Your task to perform on an android device: open a bookmark in the chrome app Image 0: 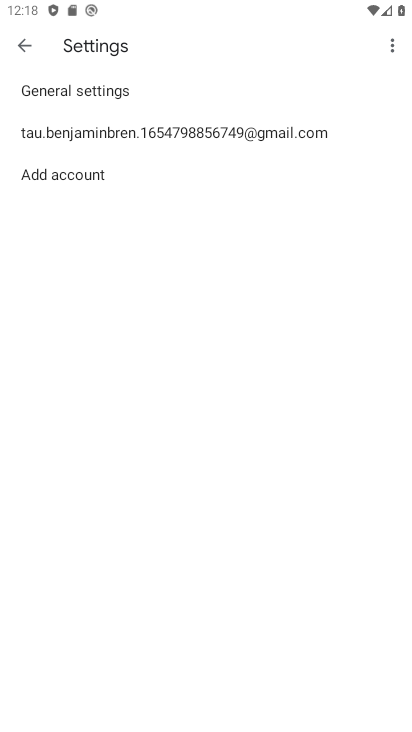
Step 0: drag from (327, 519) to (350, 146)
Your task to perform on an android device: open a bookmark in the chrome app Image 1: 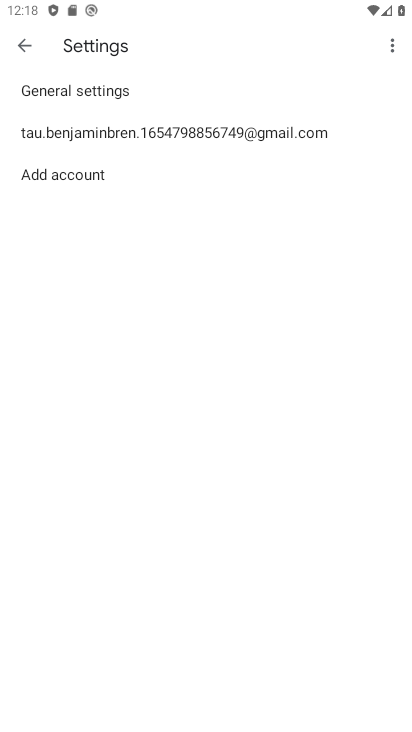
Step 1: click (26, 42)
Your task to perform on an android device: open a bookmark in the chrome app Image 2: 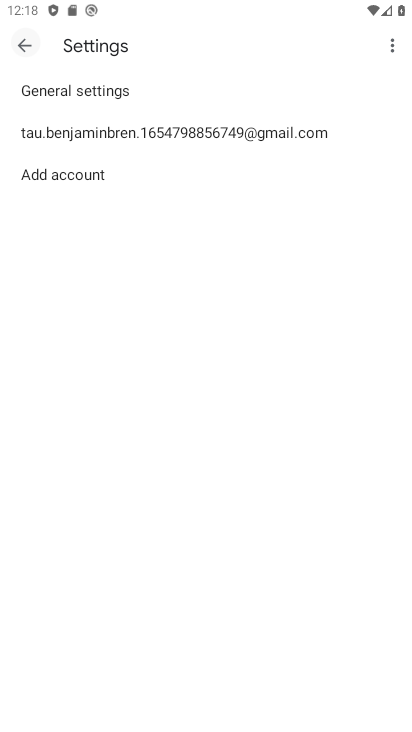
Step 2: click (21, 47)
Your task to perform on an android device: open a bookmark in the chrome app Image 3: 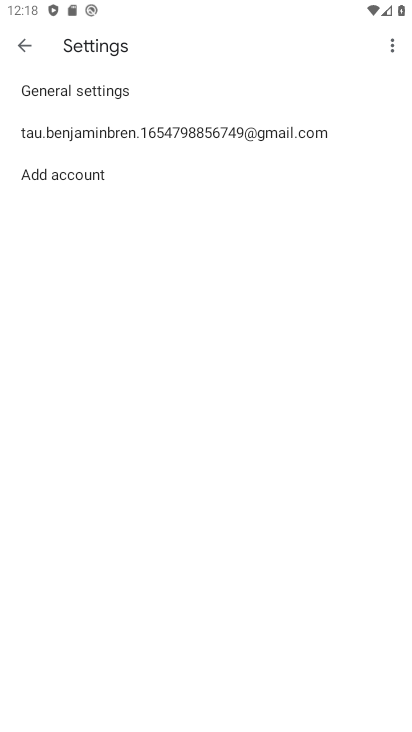
Step 3: click (22, 48)
Your task to perform on an android device: open a bookmark in the chrome app Image 4: 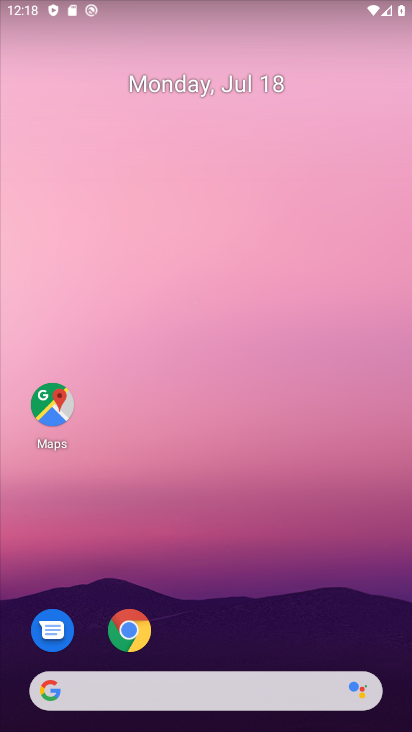
Step 4: drag from (204, 581) to (149, 39)
Your task to perform on an android device: open a bookmark in the chrome app Image 5: 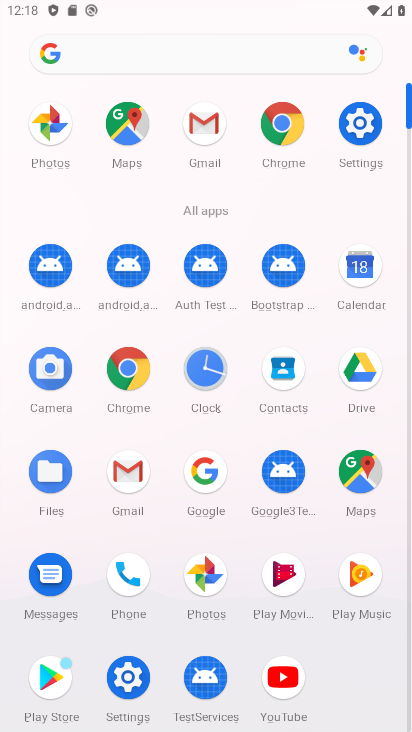
Step 5: click (273, 135)
Your task to perform on an android device: open a bookmark in the chrome app Image 6: 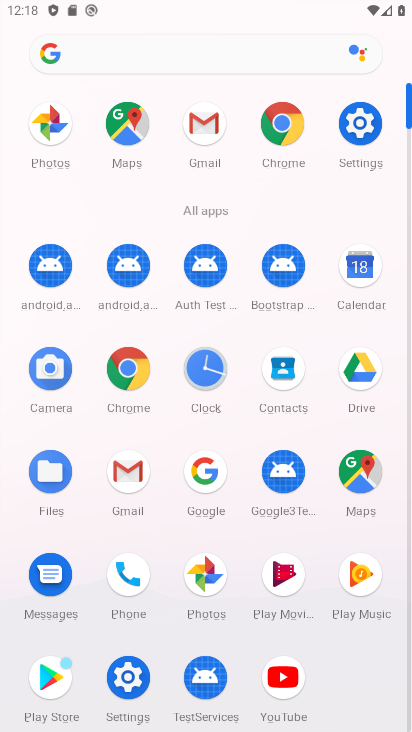
Step 6: click (273, 135)
Your task to perform on an android device: open a bookmark in the chrome app Image 7: 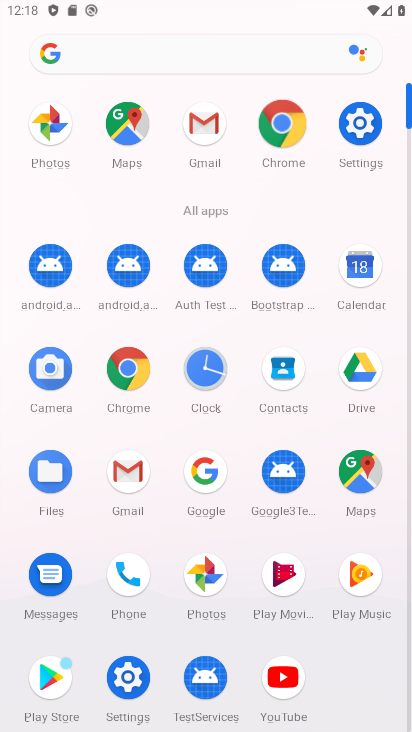
Step 7: click (277, 141)
Your task to perform on an android device: open a bookmark in the chrome app Image 8: 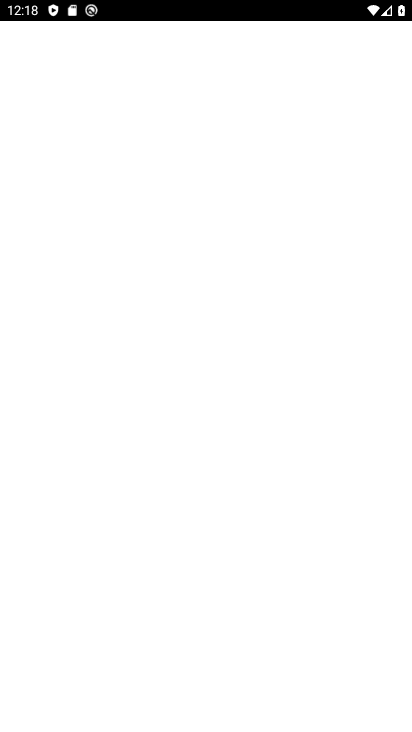
Step 8: click (289, 117)
Your task to perform on an android device: open a bookmark in the chrome app Image 9: 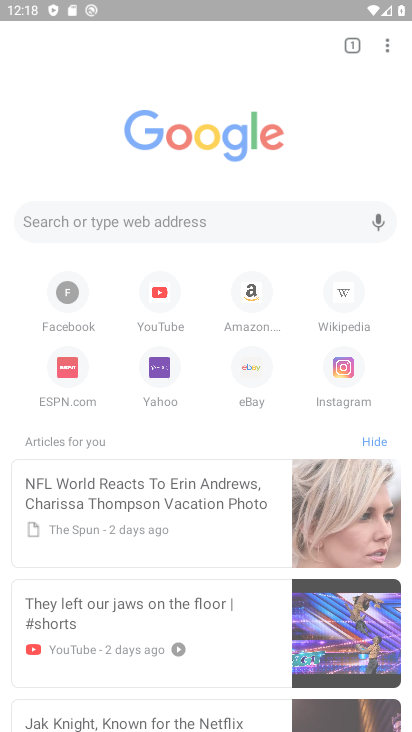
Step 9: click (293, 119)
Your task to perform on an android device: open a bookmark in the chrome app Image 10: 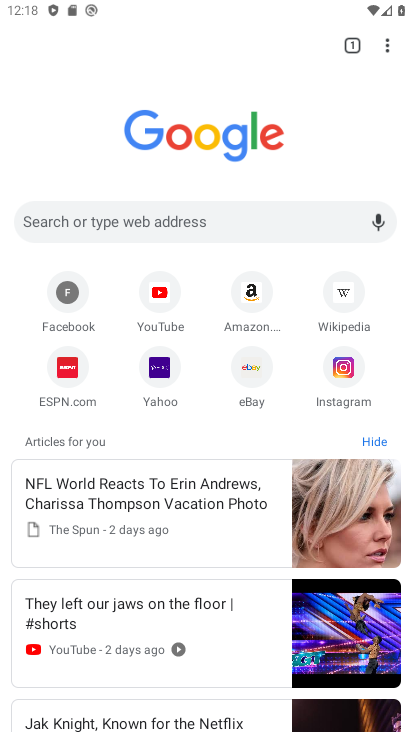
Step 10: click (387, 50)
Your task to perform on an android device: open a bookmark in the chrome app Image 11: 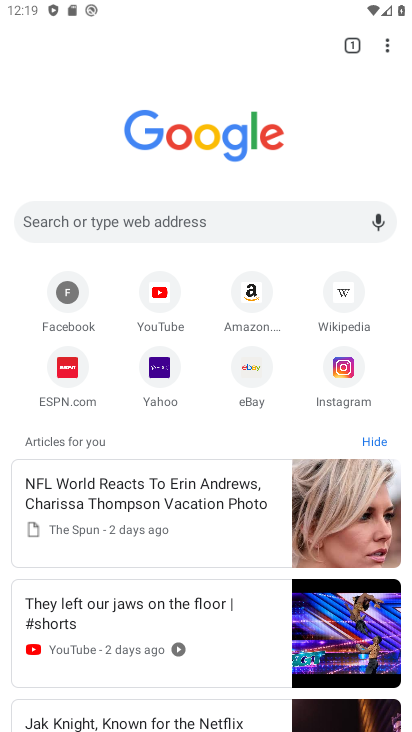
Step 11: click (384, 28)
Your task to perform on an android device: open a bookmark in the chrome app Image 12: 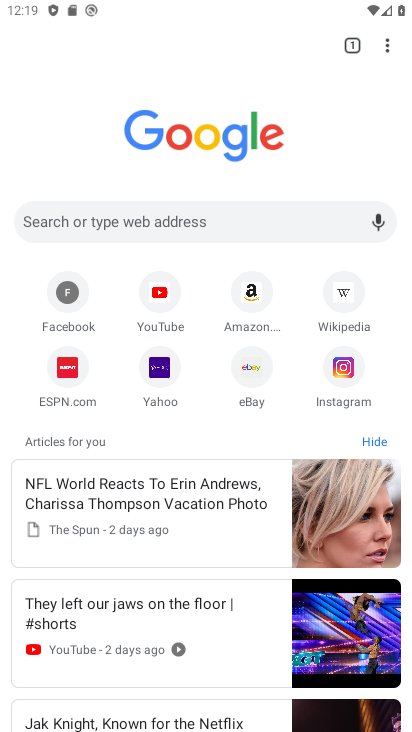
Step 12: click (405, 40)
Your task to perform on an android device: open a bookmark in the chrome app Image 13: 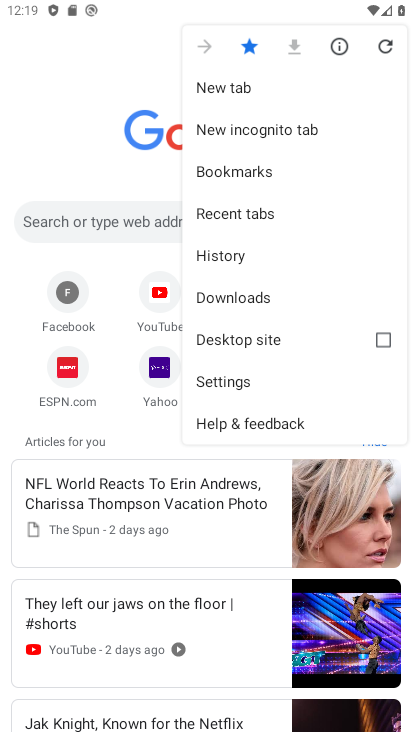
Step 13: click (390, 46)
Your task to perform on an android device: open a bookmark in the chrome app Image 14: 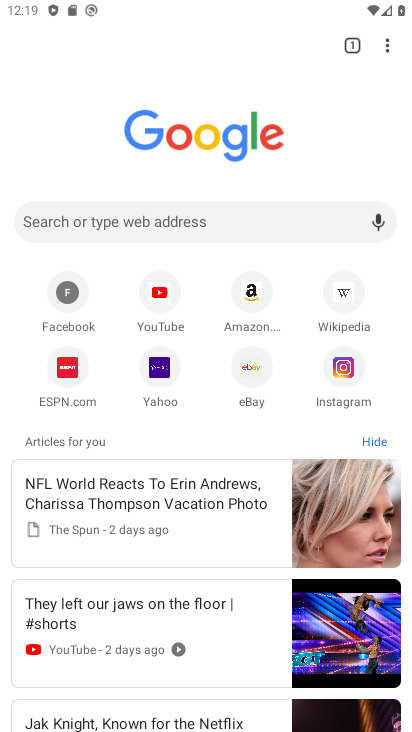
Step 14: click (386, 45)
Your task to perform on an android device: open a bookmark in the chrome app Image 15: 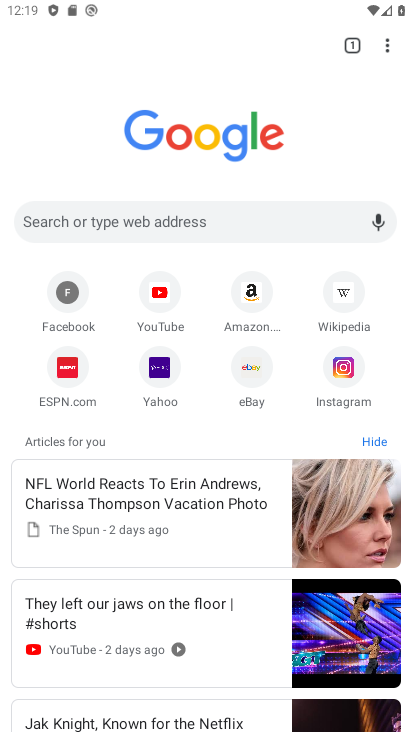
Step 15: drag from (391, 36) to (227, 177)
Your task to perform on an android device: open a bookmark in the chrome app Image 16: 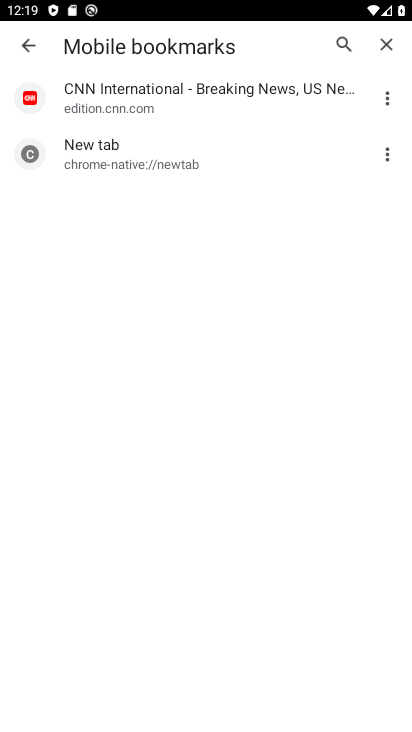
Step 16: click (241, 172)
Your task to perform on an android device: open a bookmark in the chrome app Image 17: 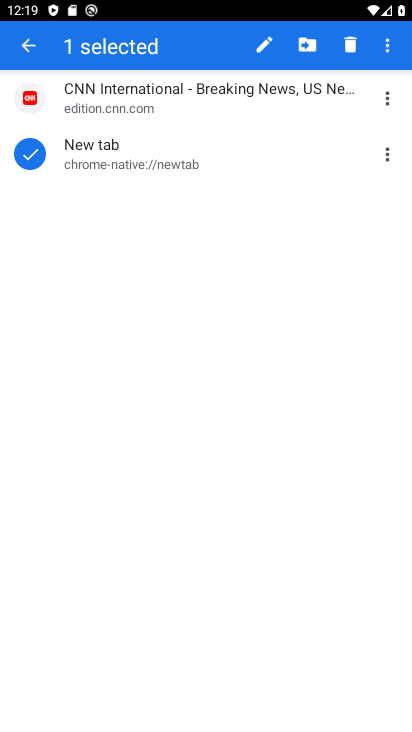
Step 17: click (241, 170)
Your task to perform on an android device: open a bookmark in the chrome app Image 18: 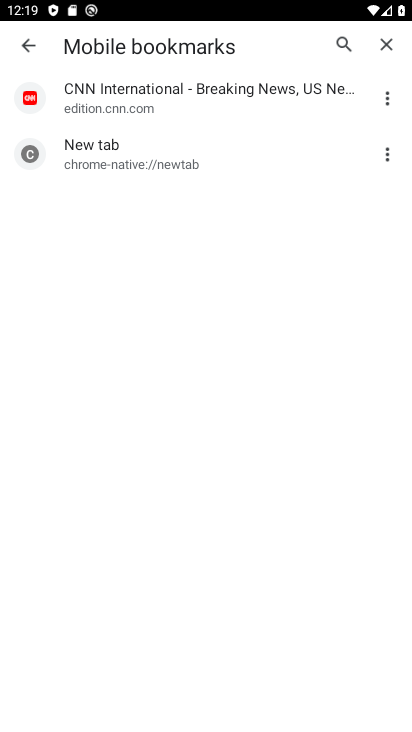
Step 18: task complete